Your task to perform on an android device: toggle data saver in the chrome app Image 0: 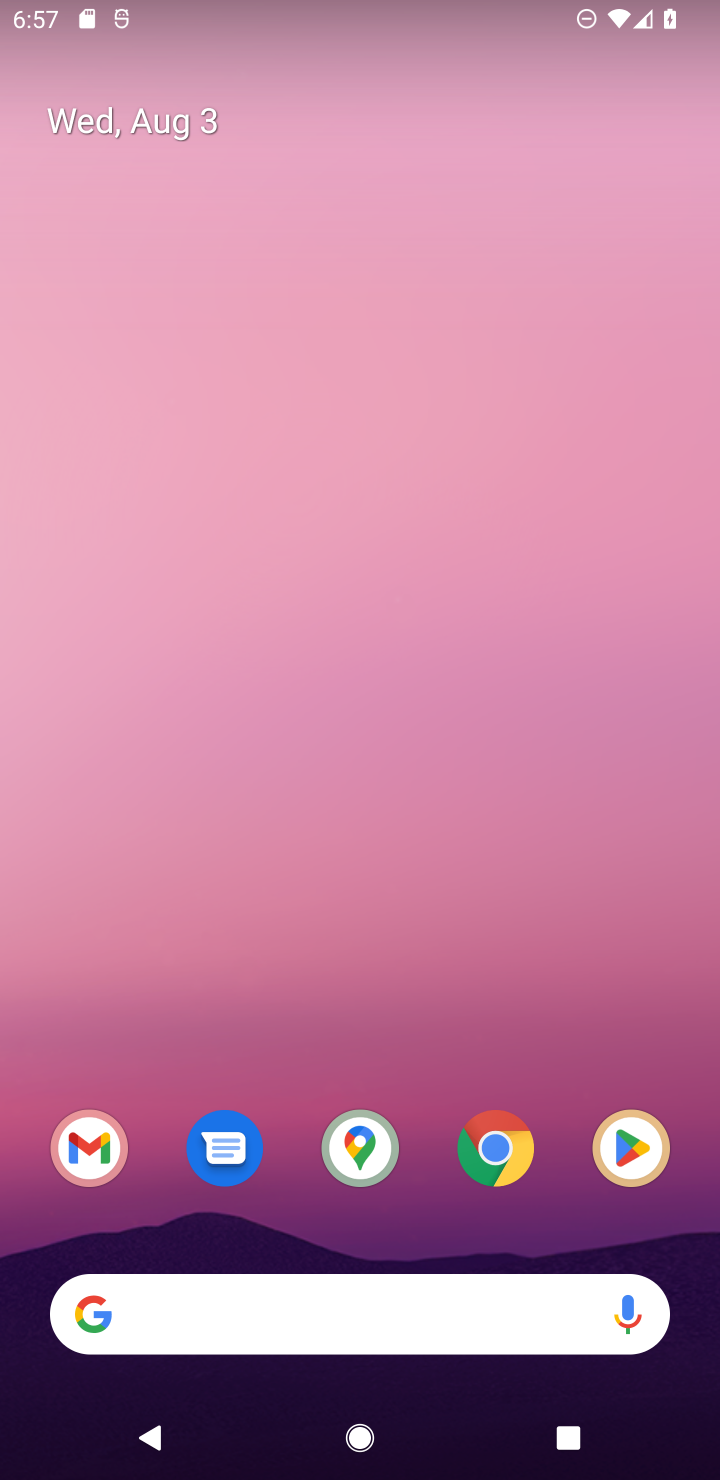
Step 0: click (482, 1145)
Your task to perform on an android device: toggle data saver in the chrome app Image 1: 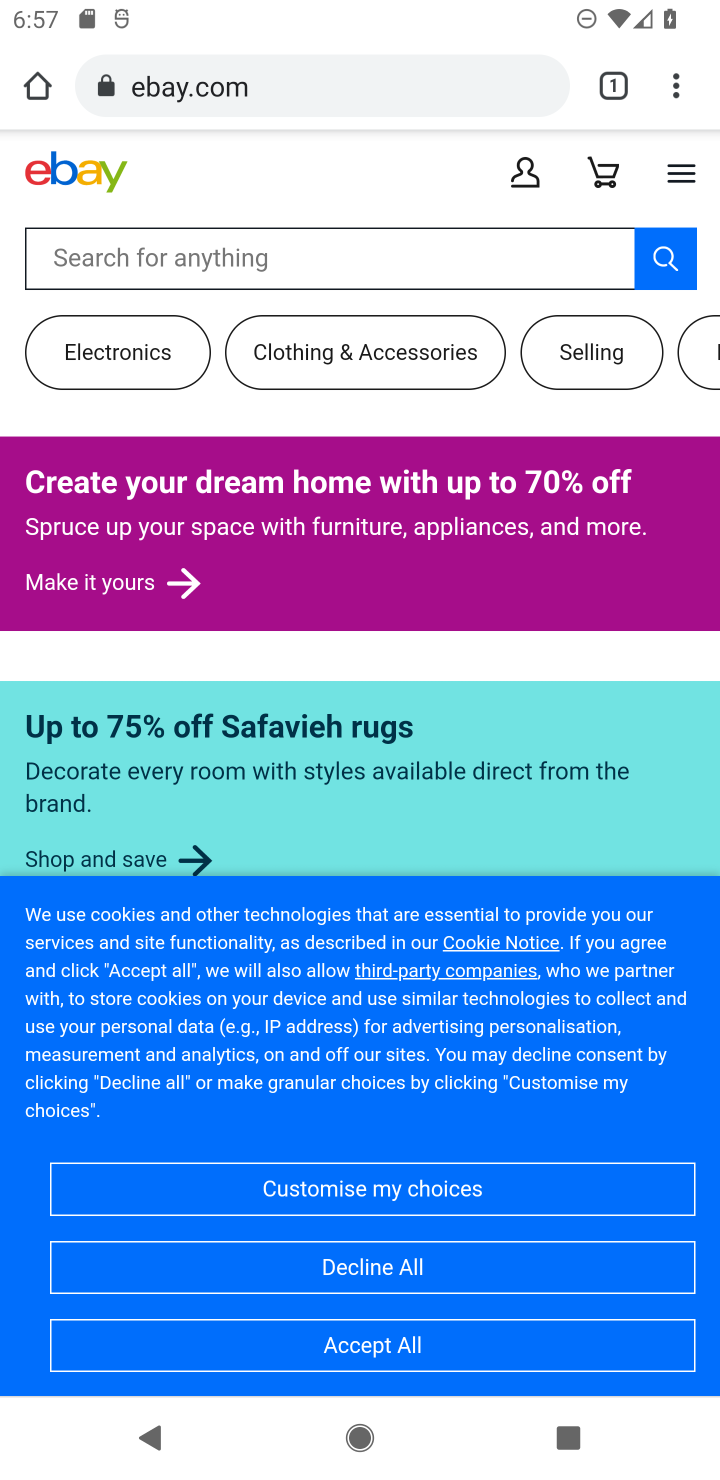
Step 1: click (677, 71)
Your task to perform on an android device: toggle data saver in the chrome app Image 2: 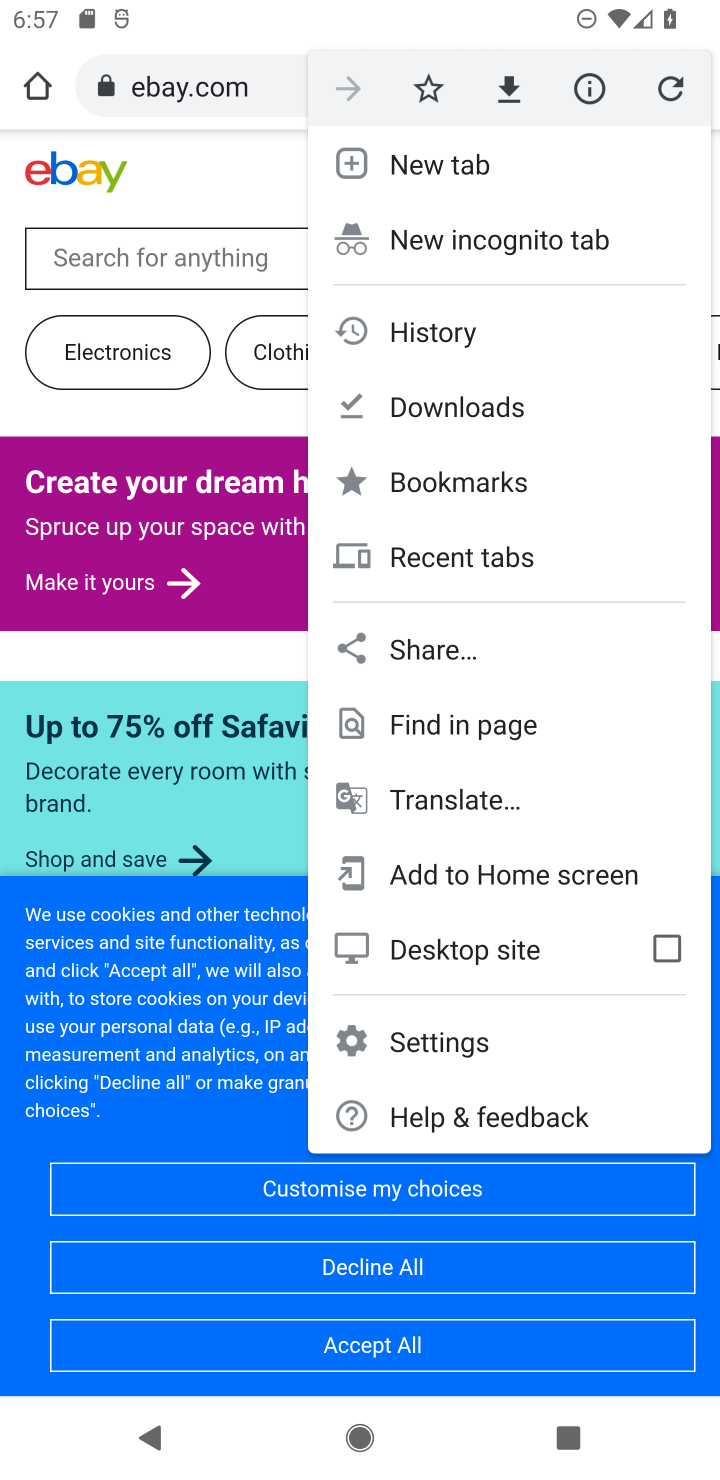
Step 2: click (435, 1047)
Your task to perform on an android device: toggle data saver in the chrome app Image 3: 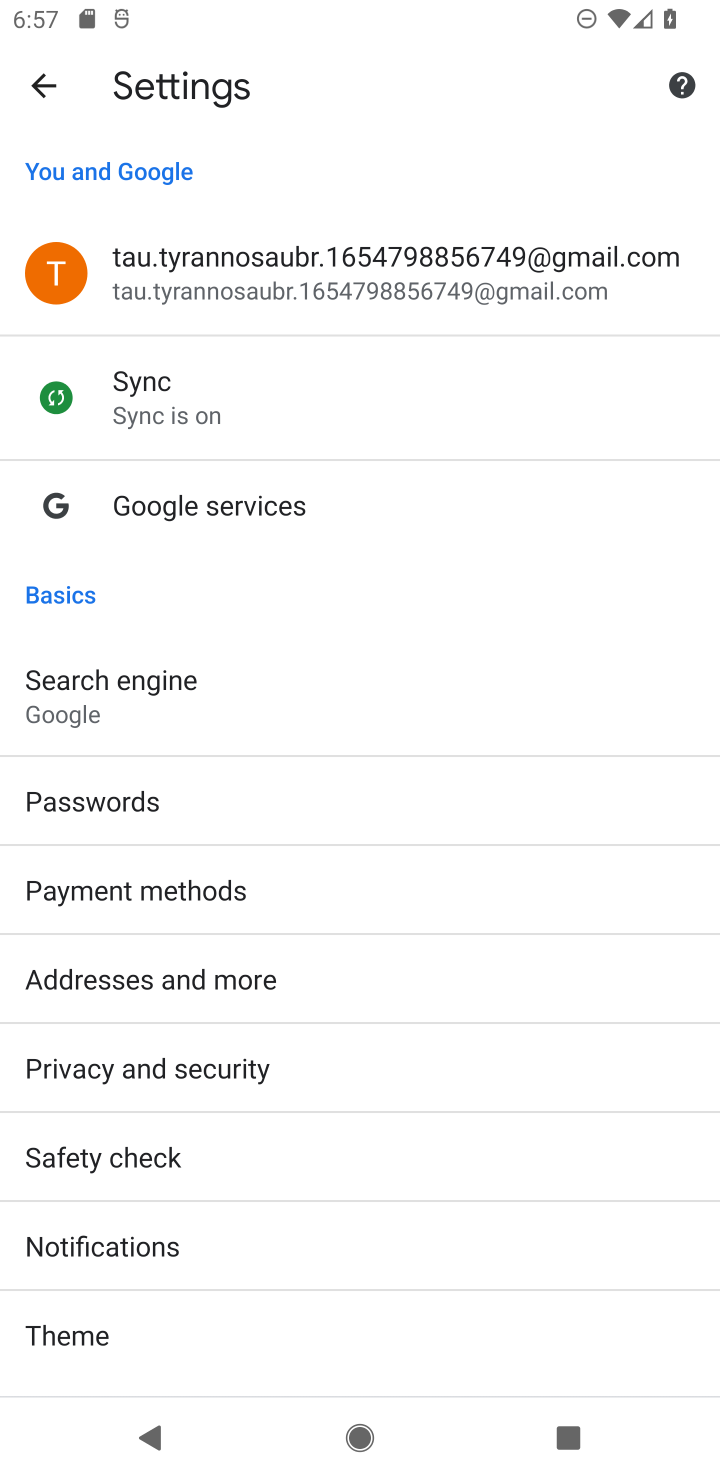
Step 3: drag from (319, 1272) to (389, 617)
Your task to perform on an android device: toggle data saver in the chrome app Image 4: 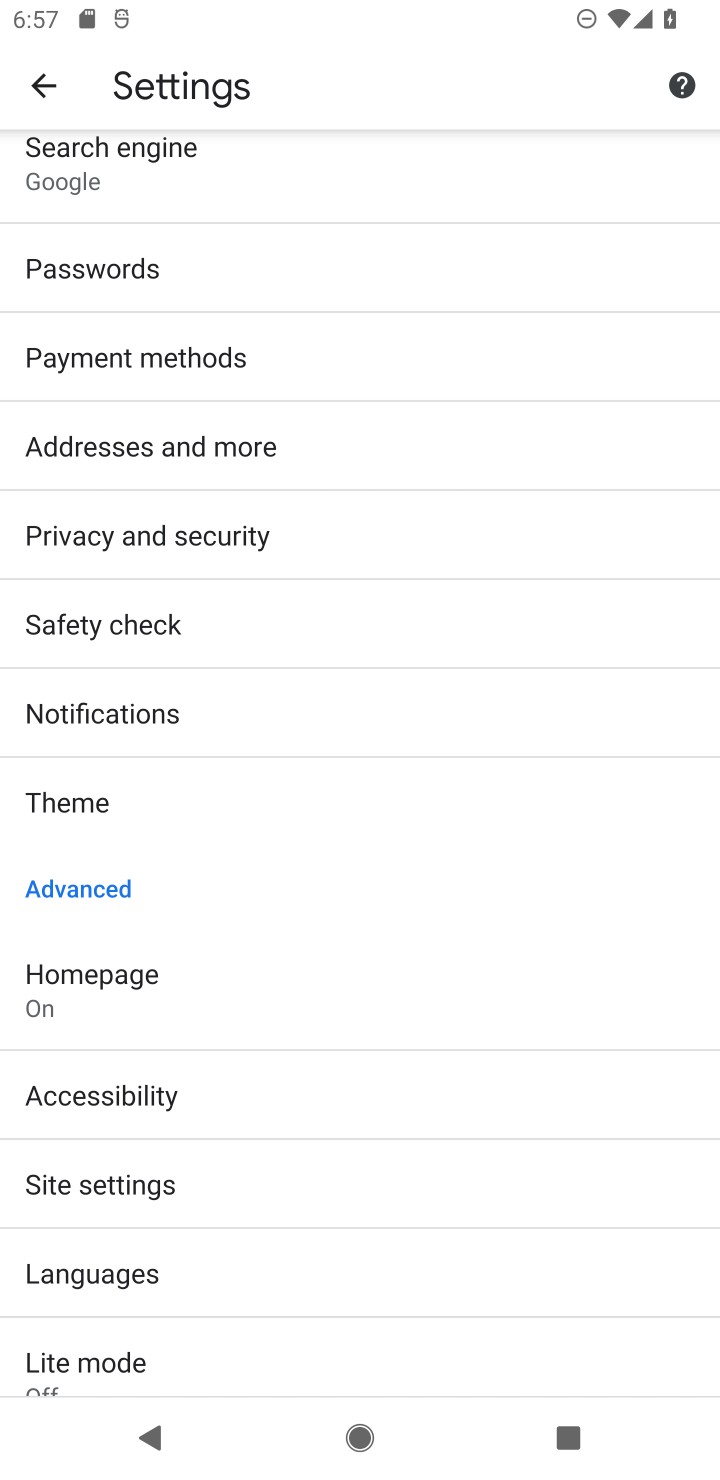
Step 4: click (84, 1357)
Your task to perform on an android device: toggle data saver in the chrome app Image 5: 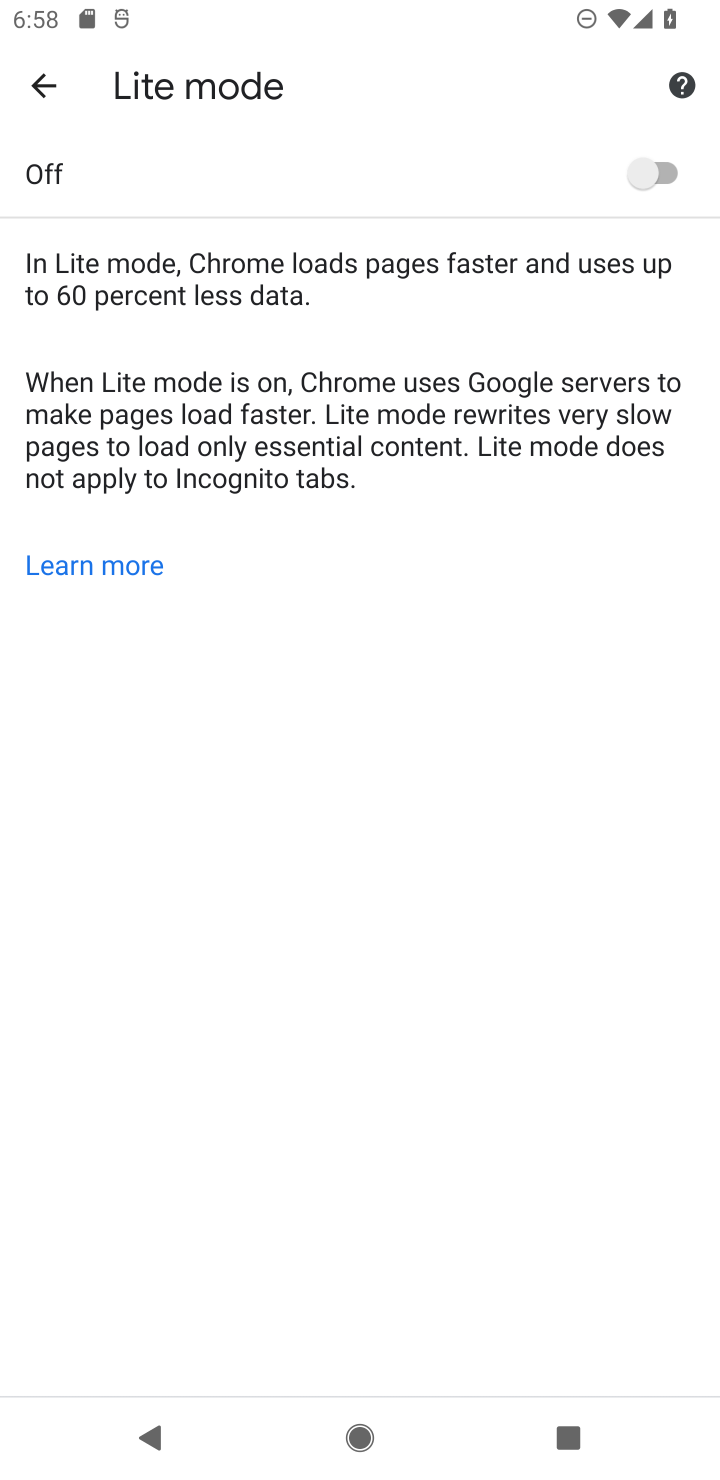
Step 5: click (672, 168)
Your task to perform on an android device: toggle data saver in the chrome app Image 6: 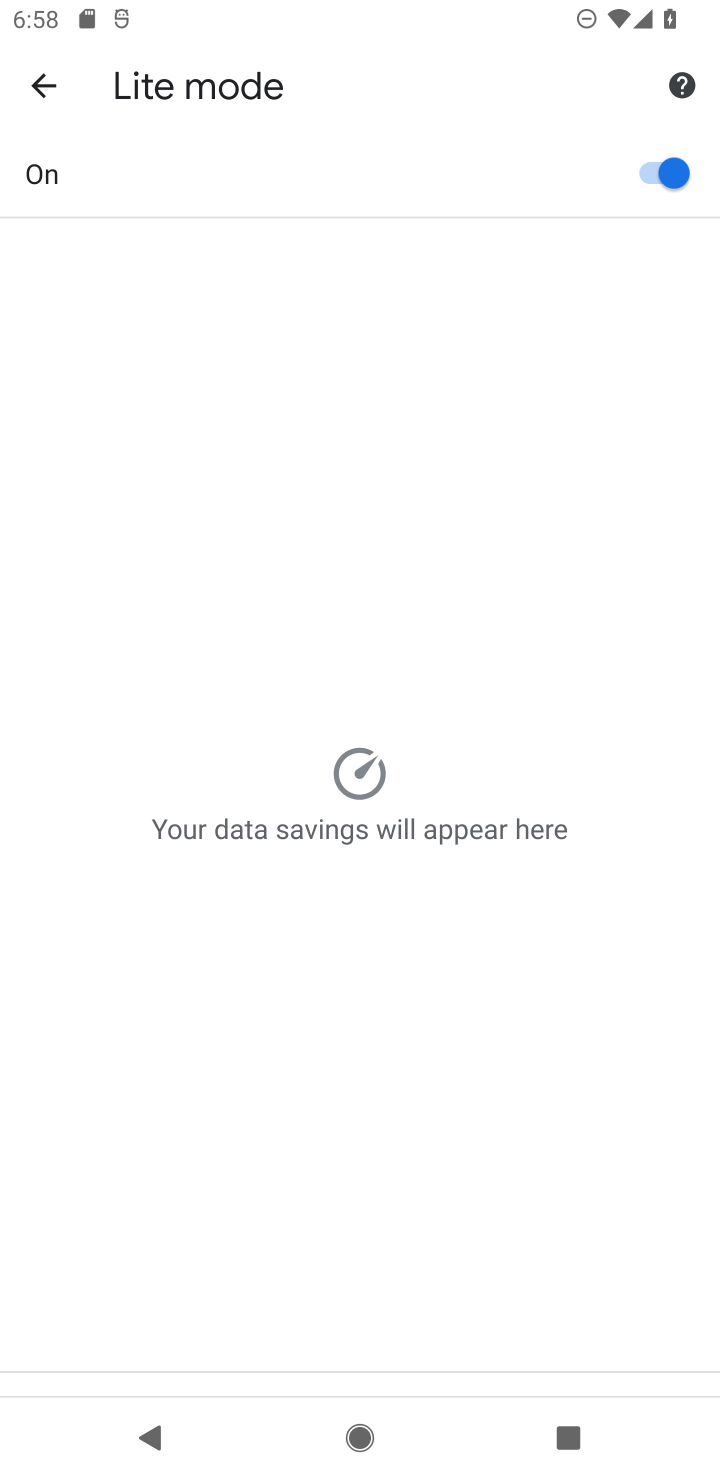
Step 6: task complete